Your task to perform on an android device: toggle location history Image 0: 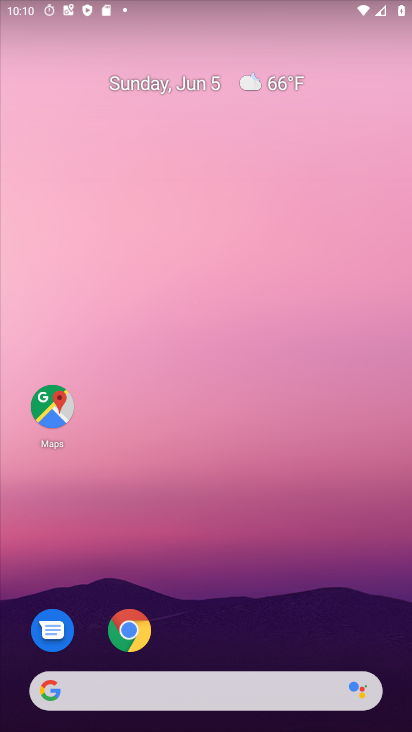
Step 0: drag from (231, 720) to (221, 63)
Your task to perform on an android device: toggle location history Image 1: 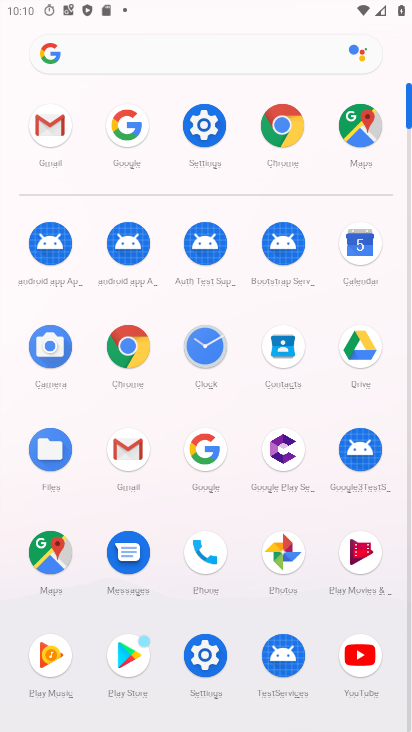
Step 1: click (203, 117)
Your task to perform on an android device: toggle location history Image 2: 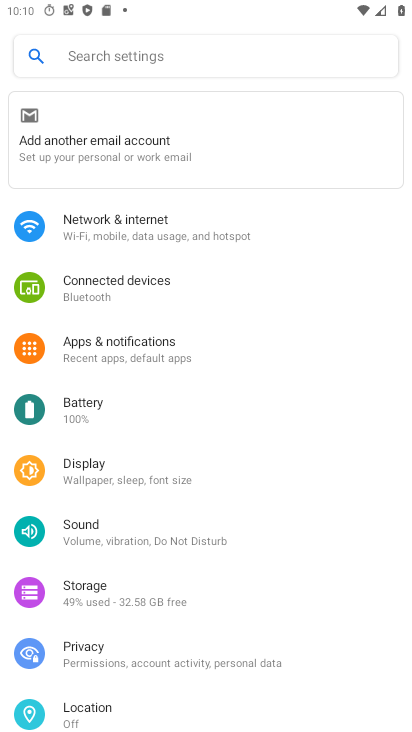
Step 2: drag from (179, 710) to (184, 244)
Your task to perform on an android device: toggle location history Image 3: 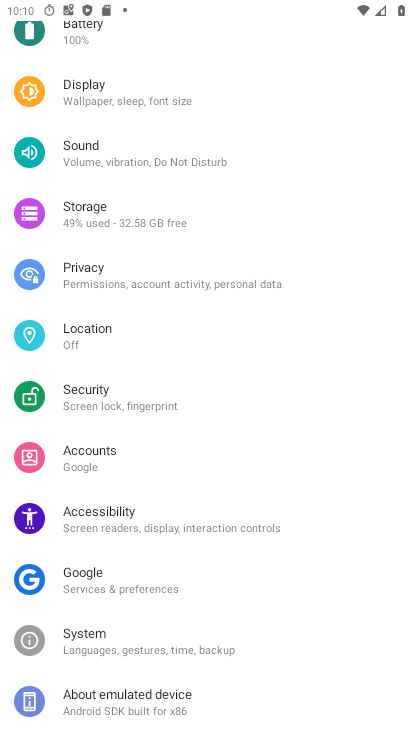
Step 3: click (74, 327)
Your task to perform on an android device: toggle location history Image 4: 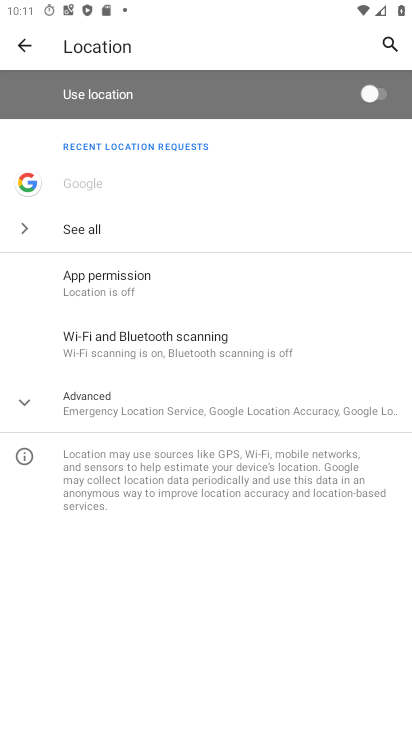
Step 4: click (86, 393)
Your task to perform on an android device: toggle location history Image 5: 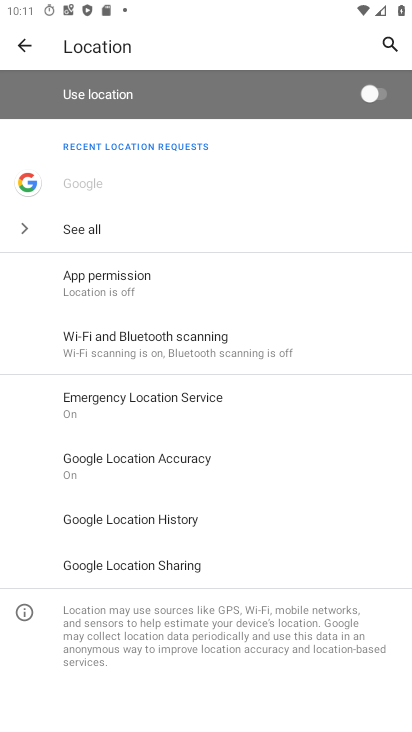
Step 5: click (155, 518)
Your task to perform on an android device: toggle location history Image 6: 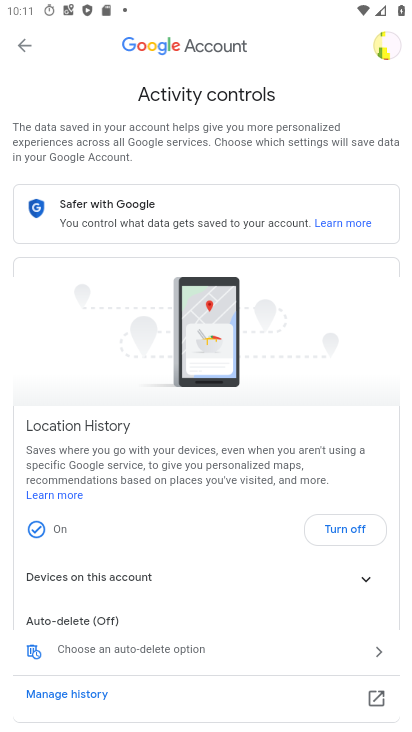
Step 6: click (336, 528)
Your task to perform on an android device: toggle location history Image 7: 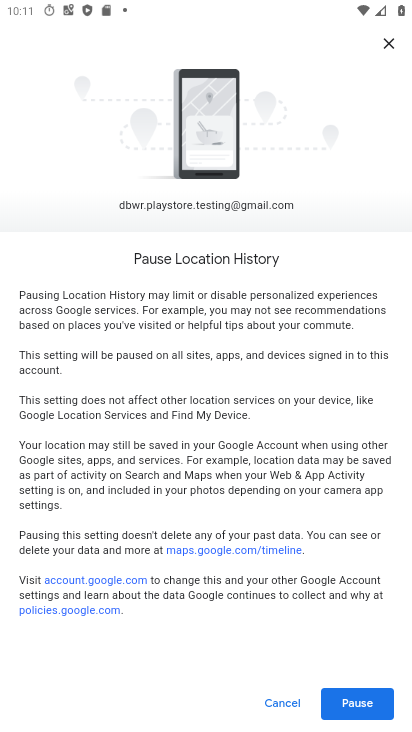
Step 7: click (356, 709)
Your task to perform on an android device: toggle location history Image 8: 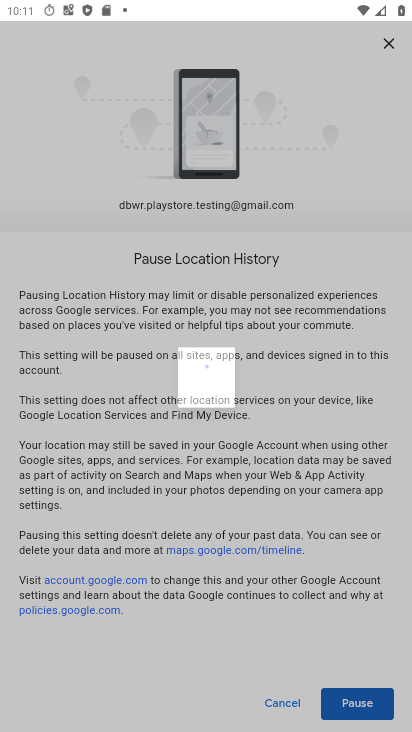
Step 8: click (358, 705)
Your task to perform on an android device: toggle location history Image 9: 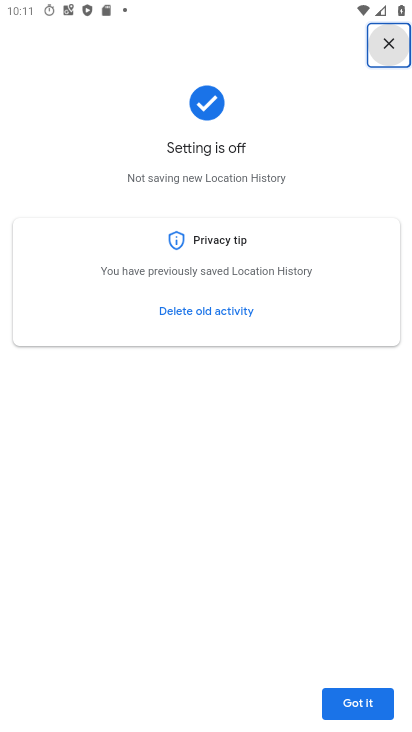
Step 9: task complete